Your task to perform on an android device: turn on sleep mode Image 0: 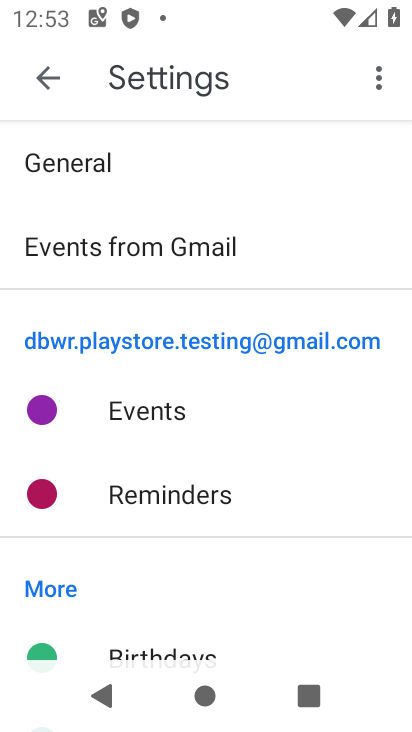
Step 0: press home button
Your task to perform on an android device: turn on sleep mode Image 1: 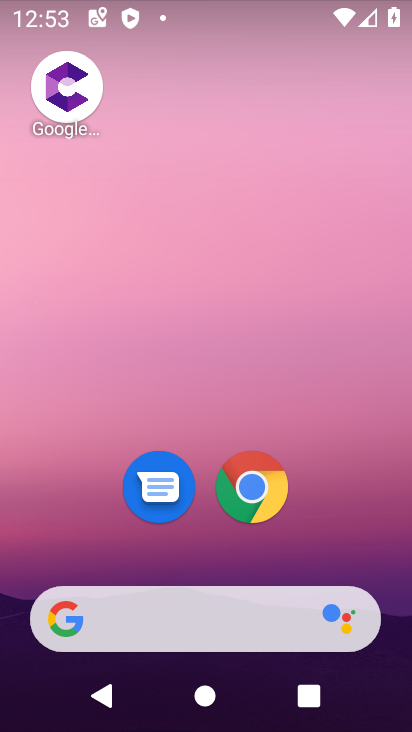
Step 1: drag from (381, 519) to (281, 156)
Your task to perform on an android device: turn on sleep mode Image 2: 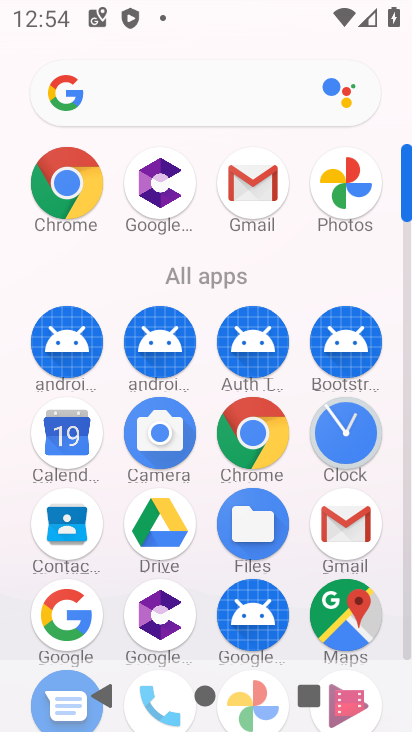
Step 2: click (407, 625)
Your task to perform on an android device: turn on sleep mode Image 3: 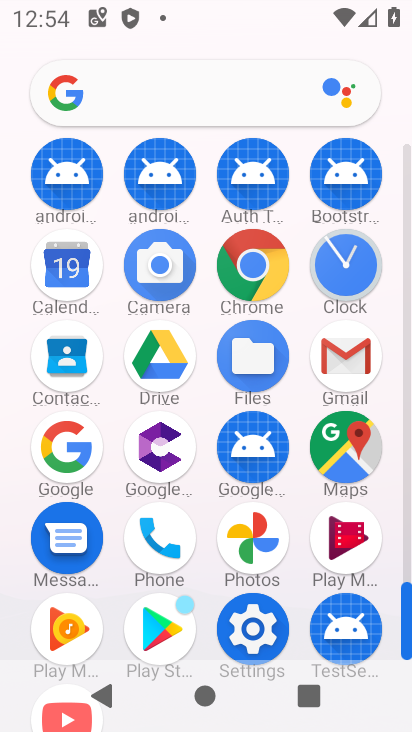
Step 3: click (264, 630)
Your task to perform on an android device: turn on sleep mode Image 4: 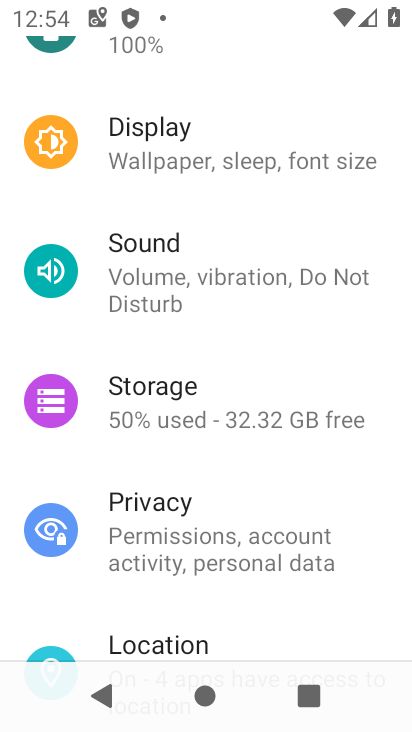
Step 4: click (286, 167)
Your task to perform on an android device: turn on sleep mode Image 5: 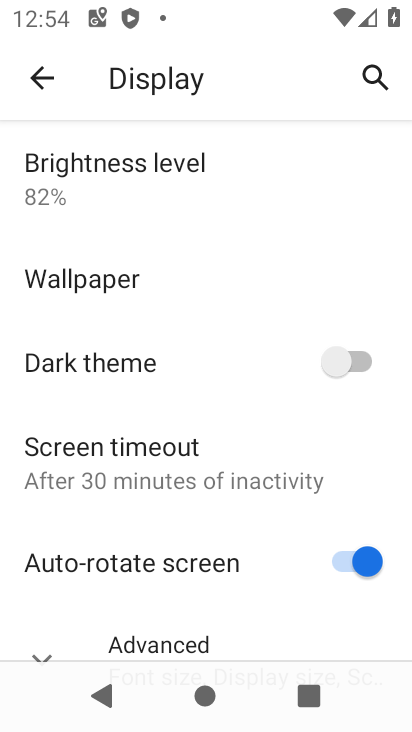
Step 5: task complete